Your task to perform on an android device: Find coffee shops on Maps Image 0: 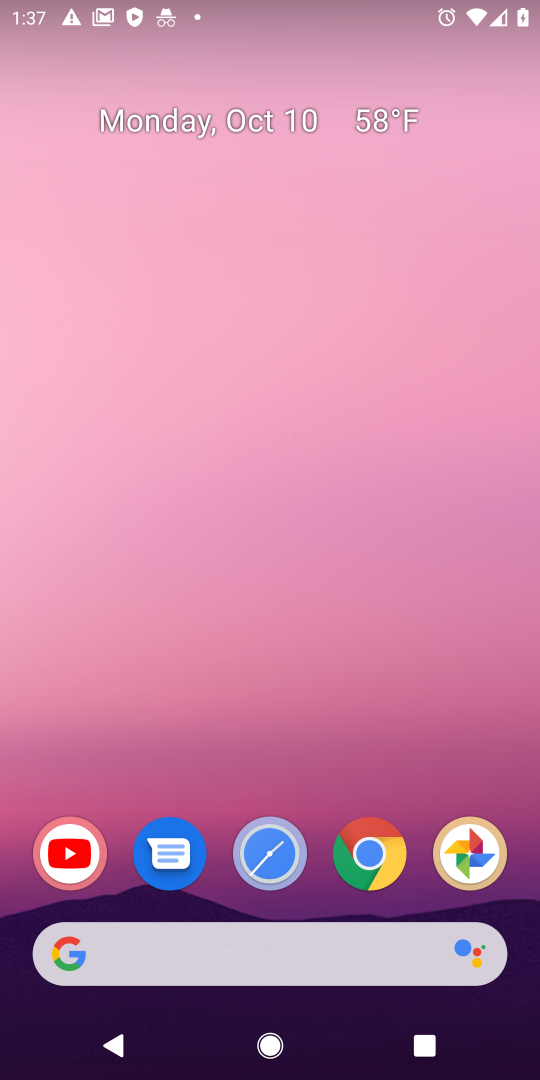
Step 0: drag from (290, 945) to (231, 19)
Your task to perform on an android device: Find coffee shops on Maps Image 1: 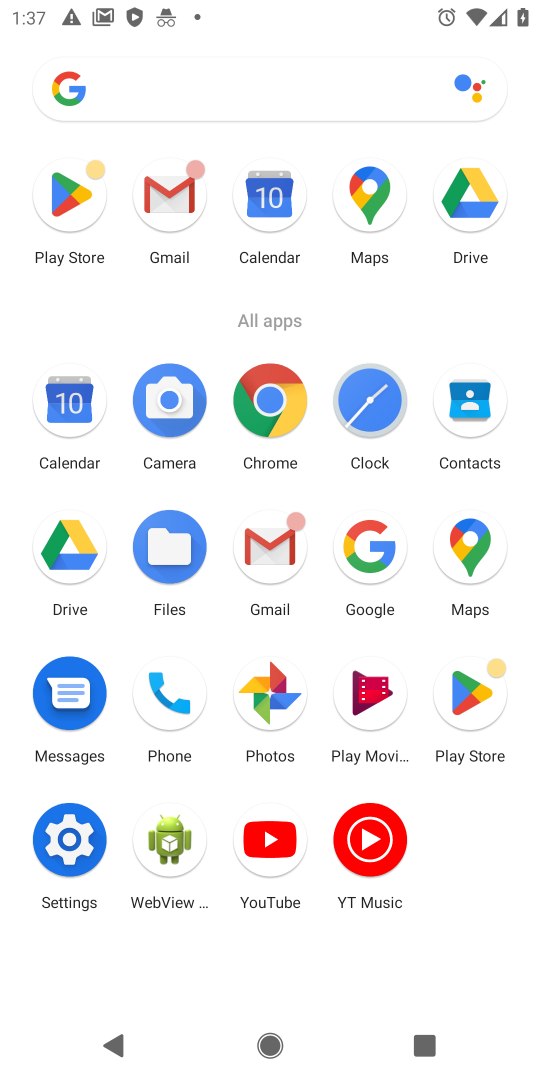
Step 1: click (461, 560)
Your task to perform on an android device: Find coffee shops on Maps Image 2: 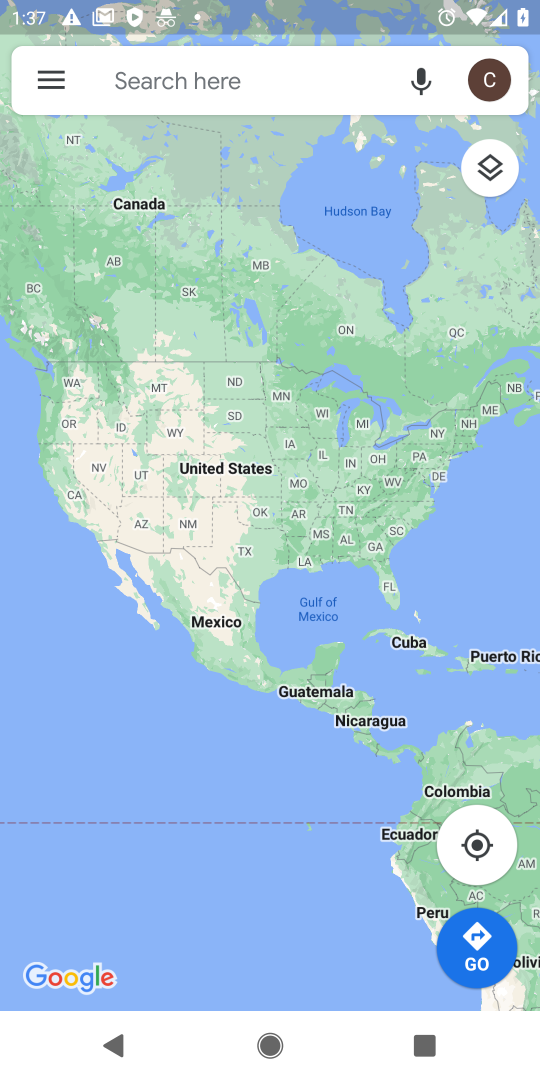
Step 2: click (230, 84)
Your task to perform on an android device: Find coffee shops on Maps Image 3: 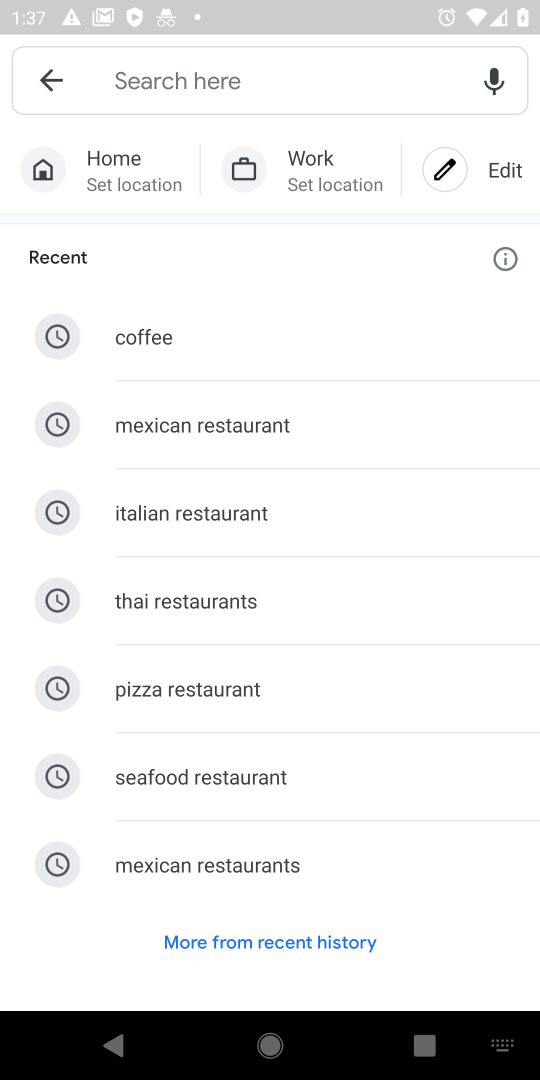
Step 3: click (217, 359)
Your task to perform on an android device: Find coffee shops on Maps Image 4: 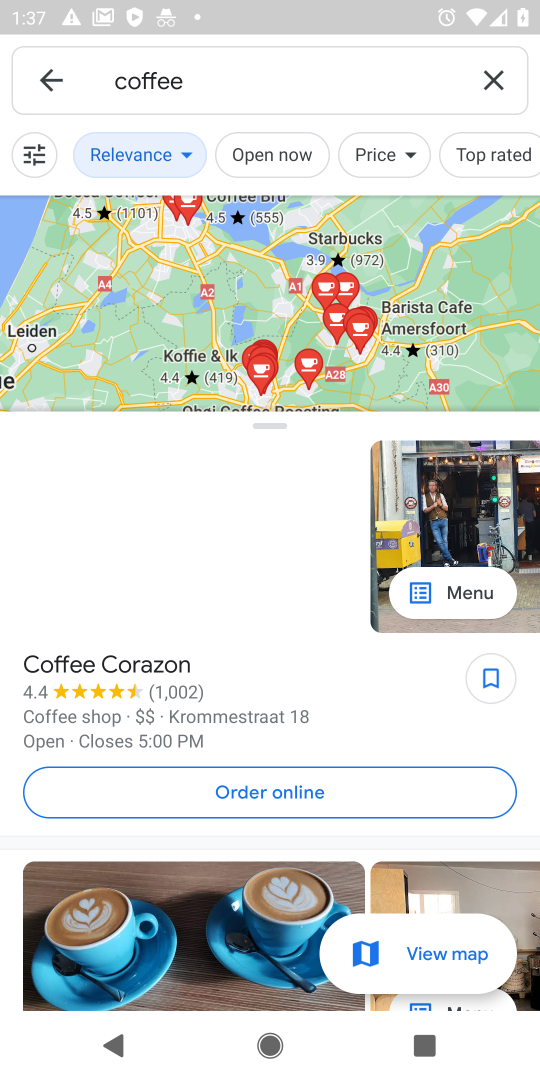
Step 4: task complete